Your task to perform on an android device: Is it going to rain today? Image 0: 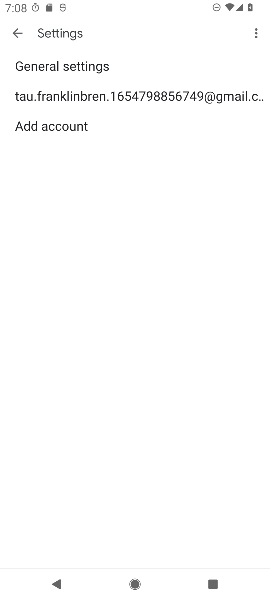
Step 0: press home button
Your task to perform on an android device: Is it going to rain today? Image 1: 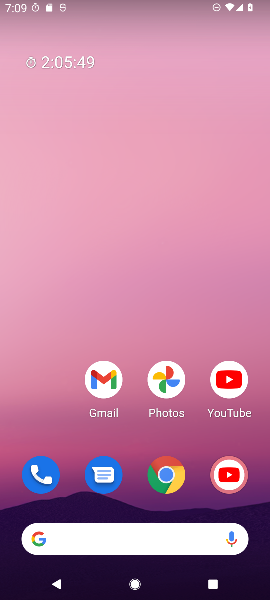
Step 1: click (130, 539)
Your task to perform on an android device: Is it going to rain today? Image 2: 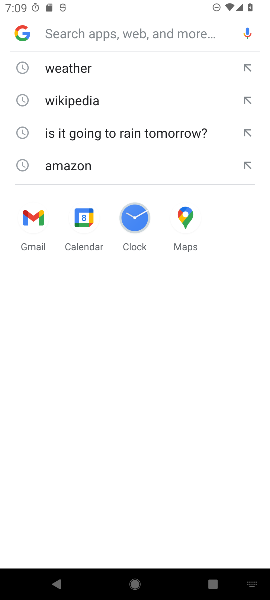
Step 2: click (111, 65)
Your task to perform on an android device: Is it going to rain today? Image 3: 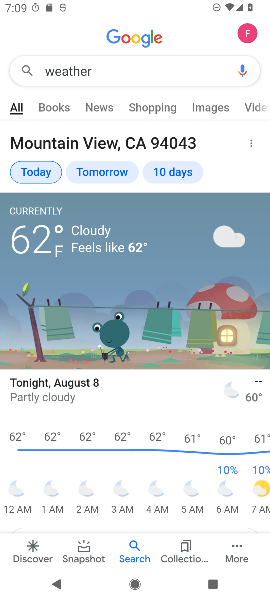
Step 3: task complete